Your task to perform on an android device: set default search engine in the chrome app Image 0: 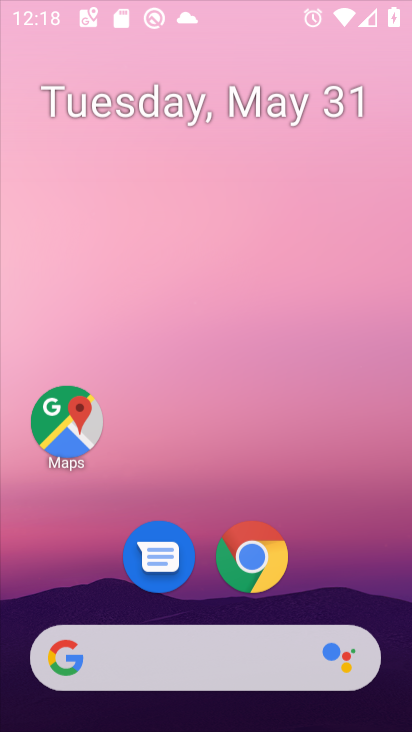
Step 0: drag from (270, 110) to (272, 13)
Your task to perform on an android device: set default search engine in the chrome app Image 1: 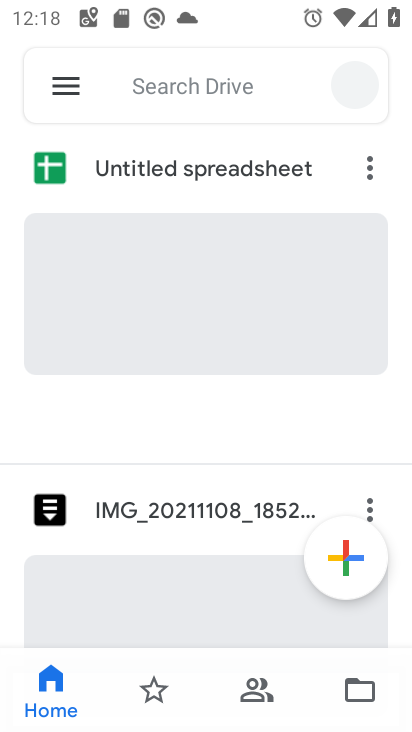
Step 1: press home button
Your task to perform on an android device: set default search engine in the chrome app Image 2: 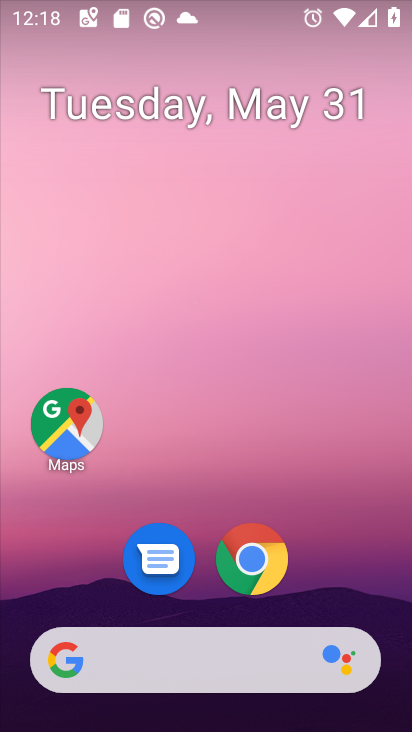
Step 2: drag from (329, 599) to (275, 105)
Your task to perform on an android device: set default search engine in the chrome app Image 3: 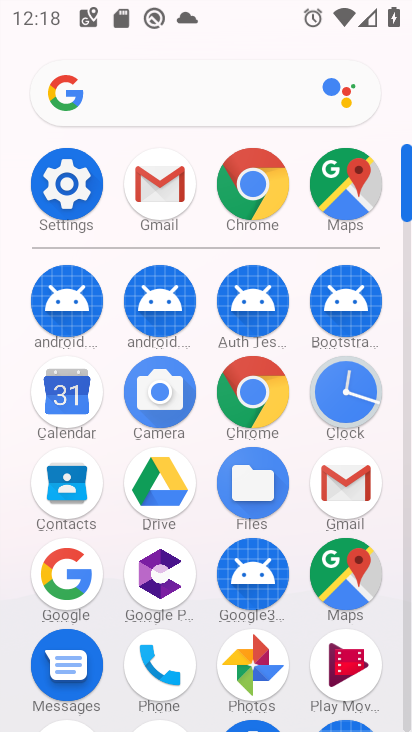
Step 3: click (268, 186)
Your task to perform on an android device: set default search engine in the chrome app Image 4: 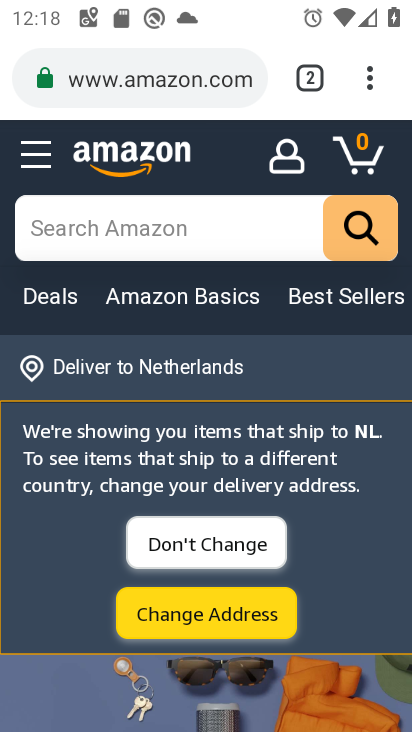
Step 4: click (384, 76)
Your task to perform on an android device: set default search engine in the chrome app Image 5: 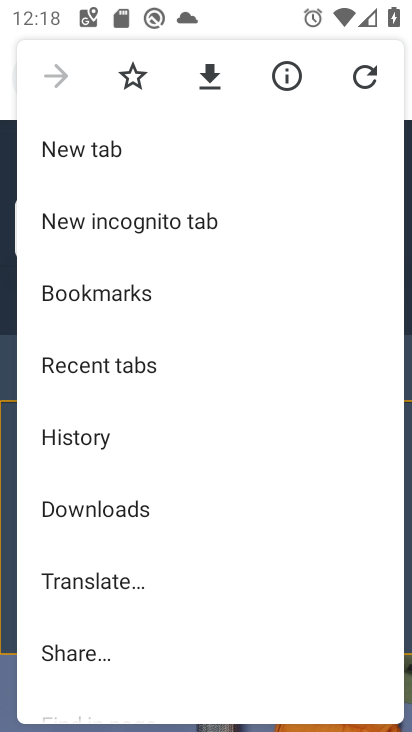
Step 5: drag from (181, 653) to (102, 226)
Your task to perform on an android device: set default search engine in the chrome app Image 6: 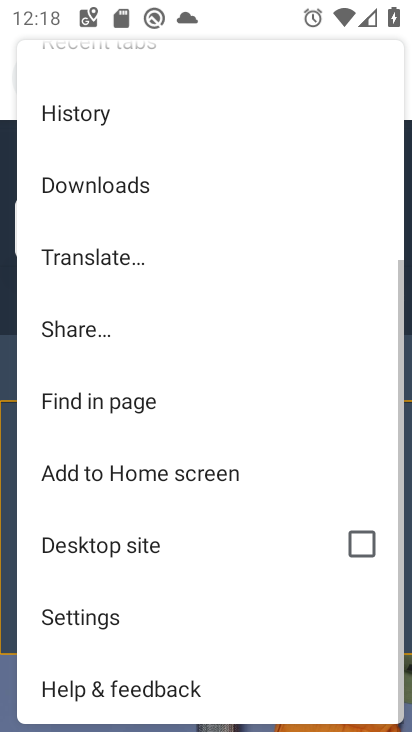
Step 6: click (148, 609)
Your task to perform on an android device: set default search engine in the chrome app Image 7: 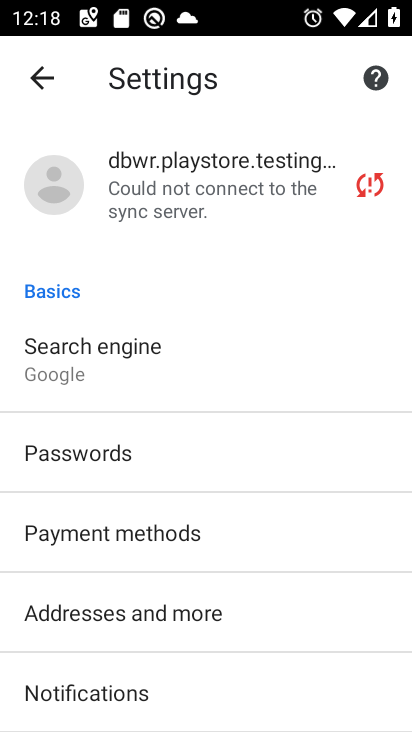
Step 7: click (183, 370)
Your task to perform on an android device: set default search engine in the chrome app Image 8: 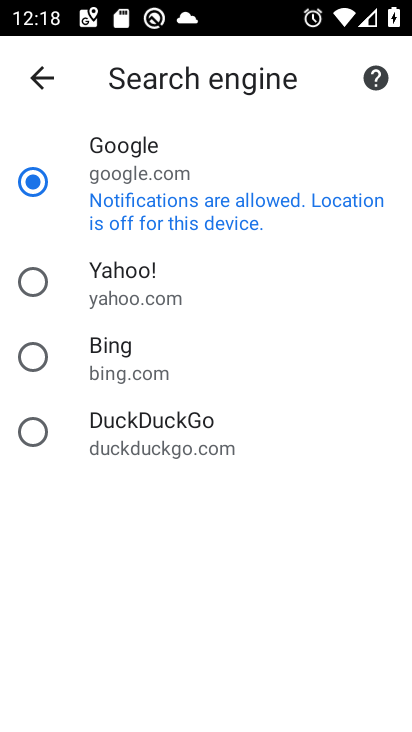
Step 8: click (160, 288)
Your task to perform on an android device: set default search engine in the chrome app Image 9: 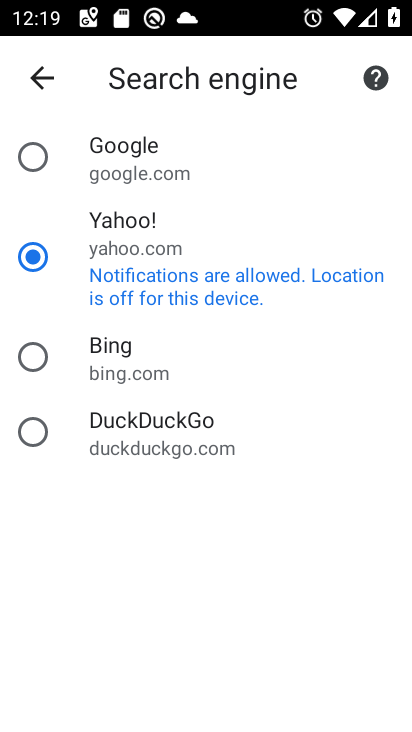
Step 9: task complete